Your task to perform on an android device: open chrome privacy settings Image 0: 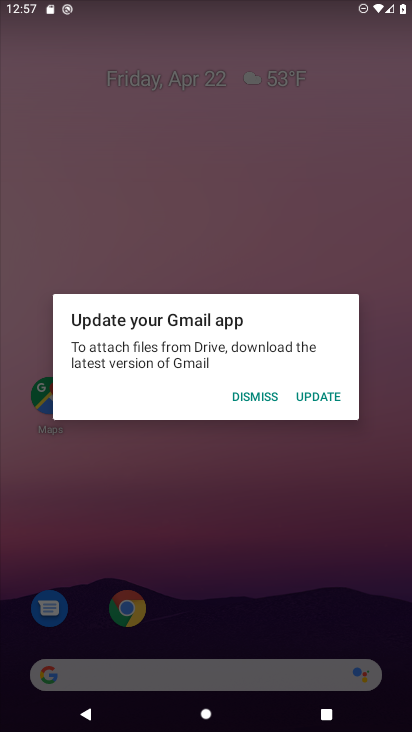
Step 0: press home button
Your task to perform on an android device: open chrome privacy settings Image 1: 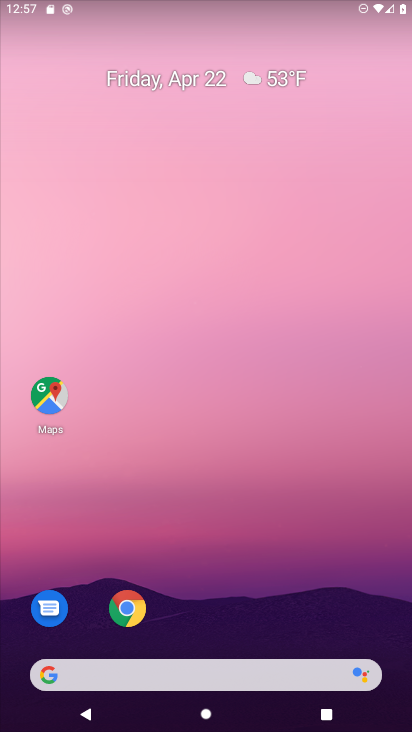
Step 1: click (126, 611)
Your task to perform on an android device: open chrome privacy settings Image 2: 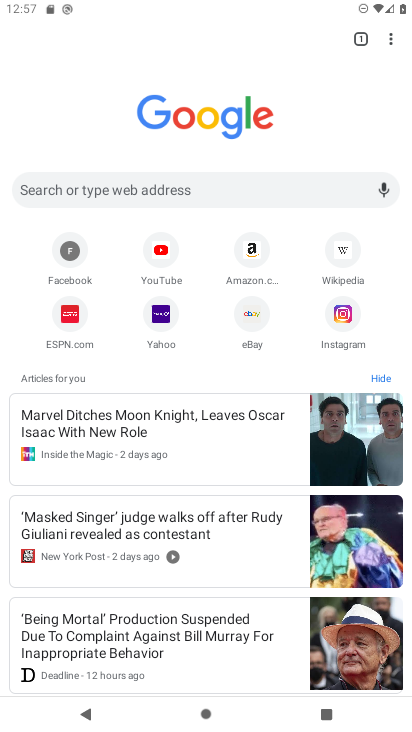
Step 2: click (389, 40)
Your task to perform on an android device: open chrome privacy settings Image 3: 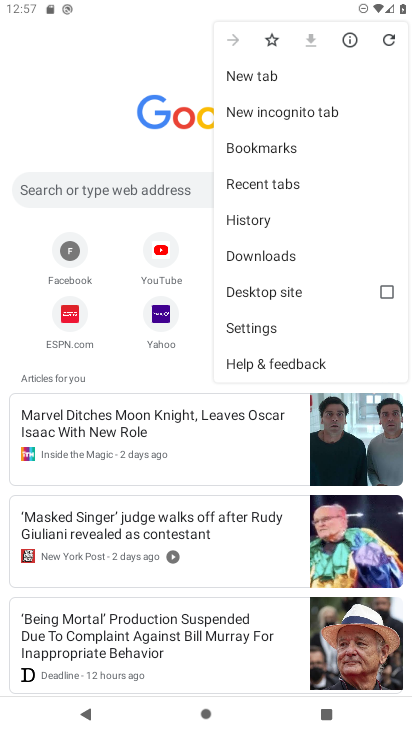
Step 3: click (254, 325)
Your task to perform on an android device: open chrome privacy settings Image 4: 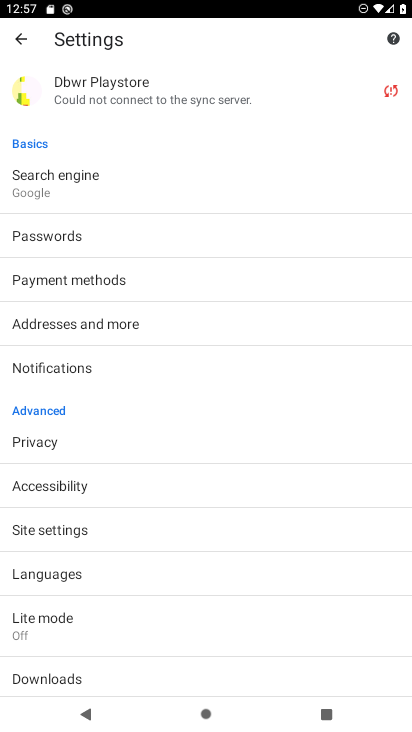
Step 4: click (39, 436)
Your task to perform on an android device: open chrome privacy settings Image 5: 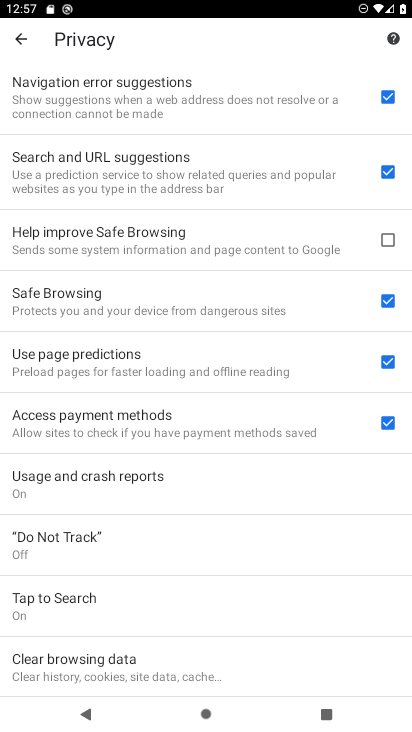
Step 5: task complete